Your task to perform on an android device: Open the Play Movies app and select the watchlist tab. Image 0: 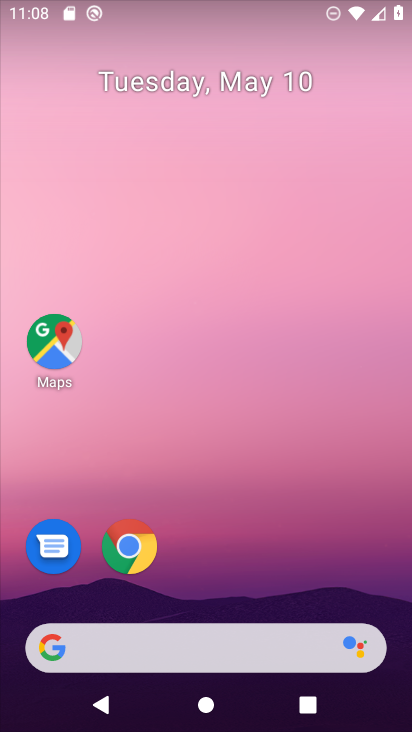
Step 0: drag from (263, 554) to (296, 131)
Your task to perform on an android device: Open the Play Movies app and select the watchlist tab. Image 1: 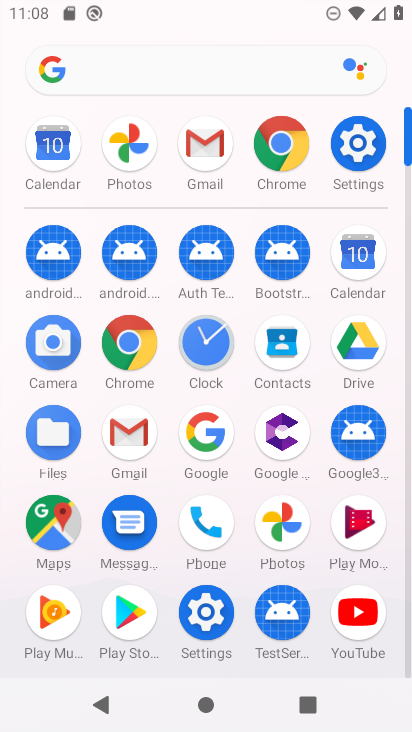
Step 1: click (372, 524)
Your task to perform on an android device: Open the Play Movies app and select the watchlist tab. Image 2: 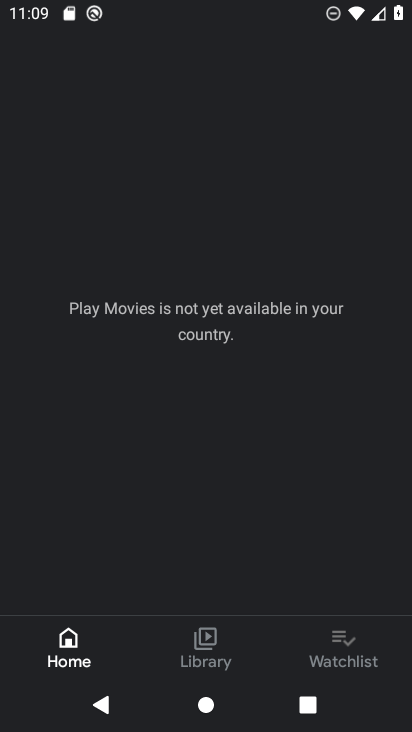
Step 2: click (347, 658)
Your task to perform on an android device: Open the Play Movies app and select the watchlist tab. Image 3: 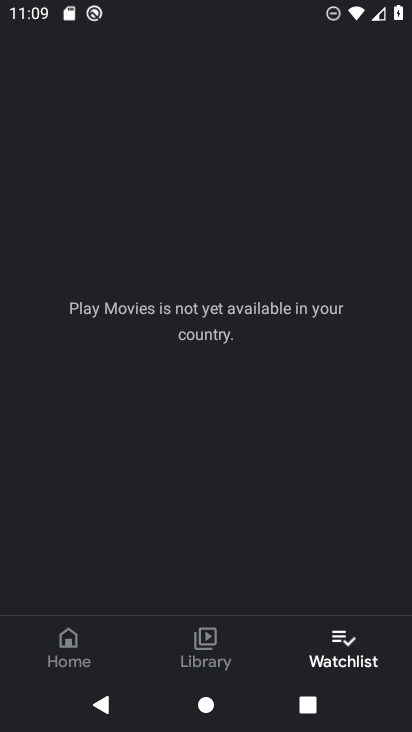
Step 3: task complete